Your task to perform on an android device: Go to ESPN.com Image 0: 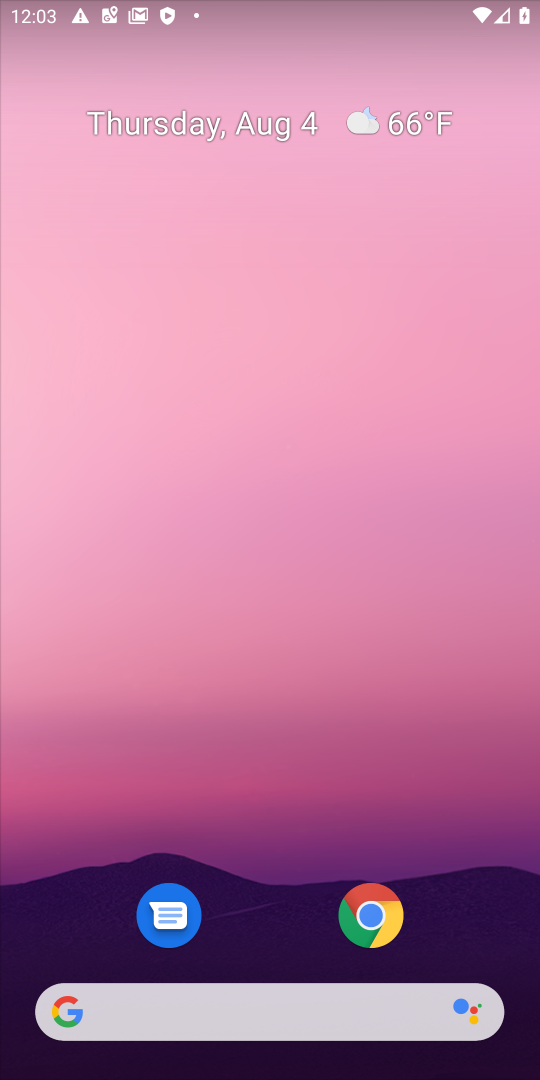
Step 0: click (383, 907)
Your task to perform on an android device: Go to ESPN.com Image 1: 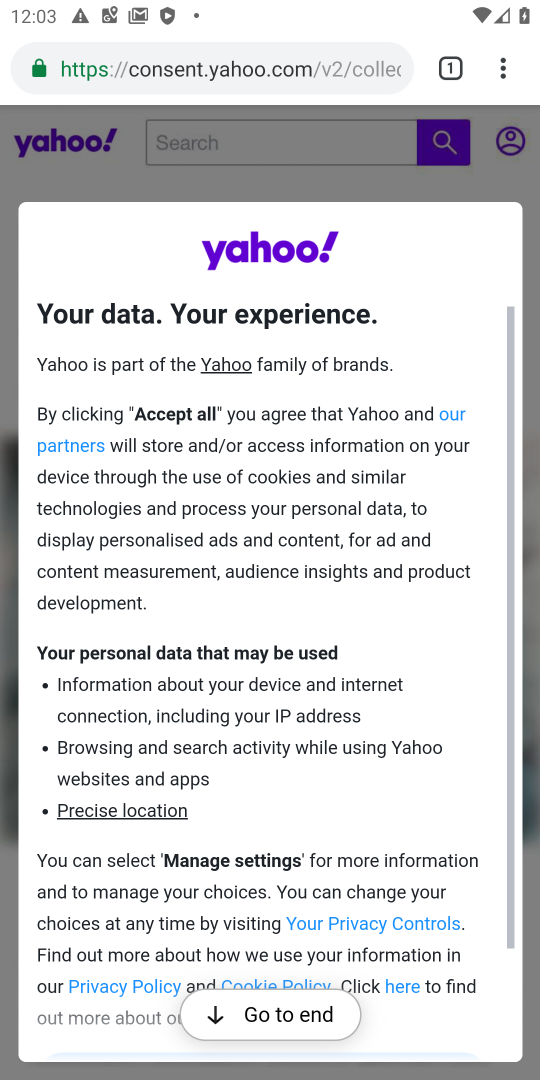
Step 1: press back button
Your task to perform on an android device: Go to ESPN.com Image 2: 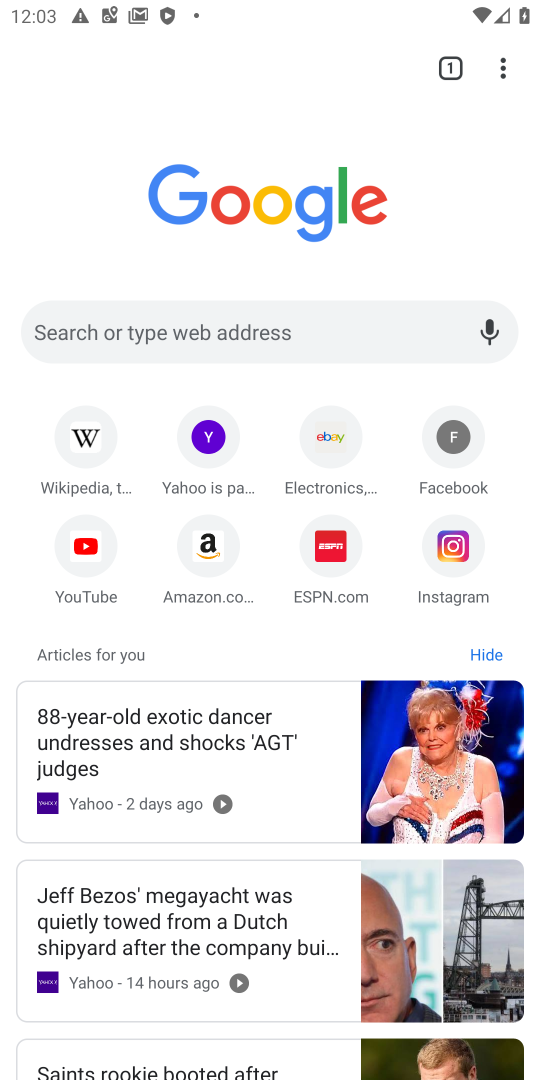
Step 2: click (342, 572)
Your task to perform on an android device: Go to ESPN.com Image 3: 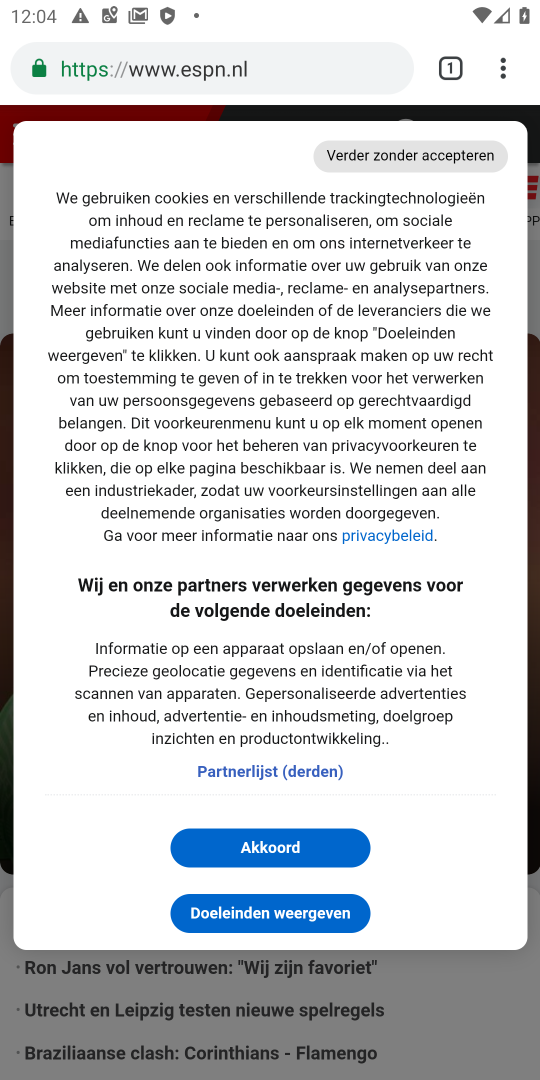
Step 3: task complete